Your task to perform on an android device: Find coffee shops on Maps Image 0: 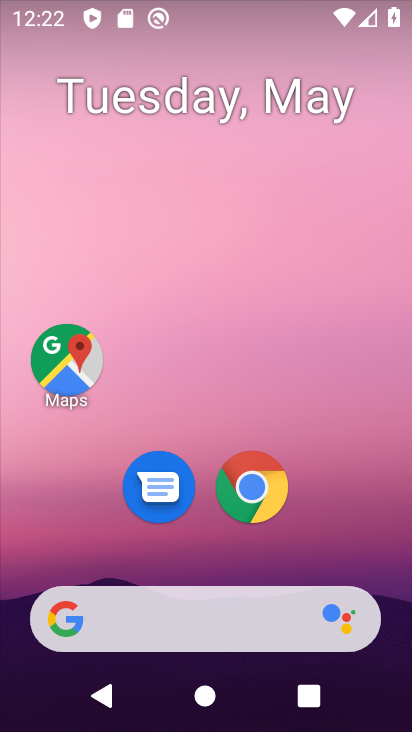
Step 0: drag from (361, 521) to (266, 10)
Your task to perform on an android device: Find coffee shops on Maps Image 1: 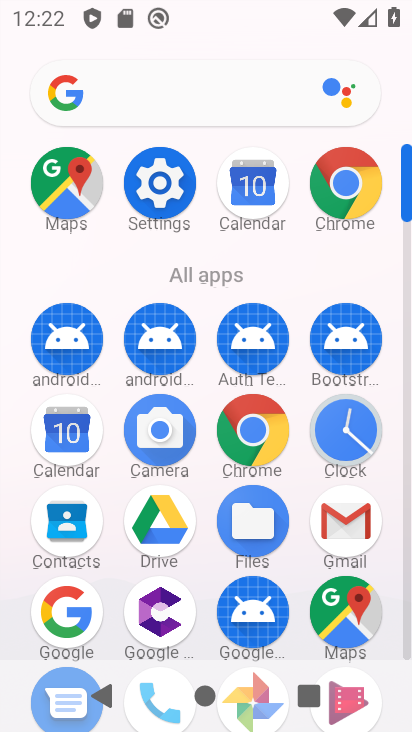
Step 1: drag from (12, 562) to (17, 244)
Your task to perform on an android device: Find coffee shops on Maps Image 2: 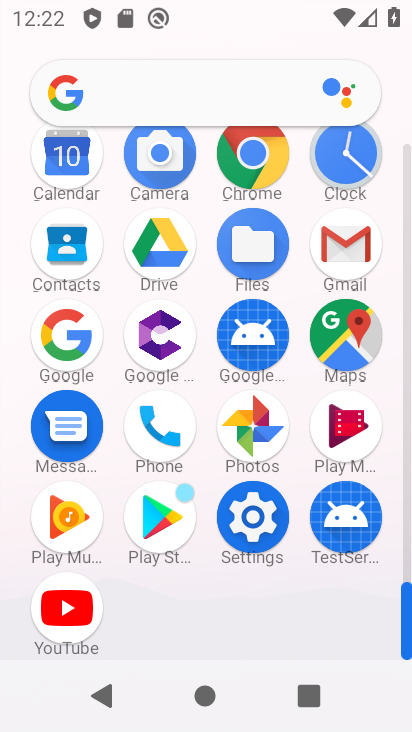
Step 2: click (340, 330)
Your task to perform on an android device: Find coffee shops on Maps Image 3: 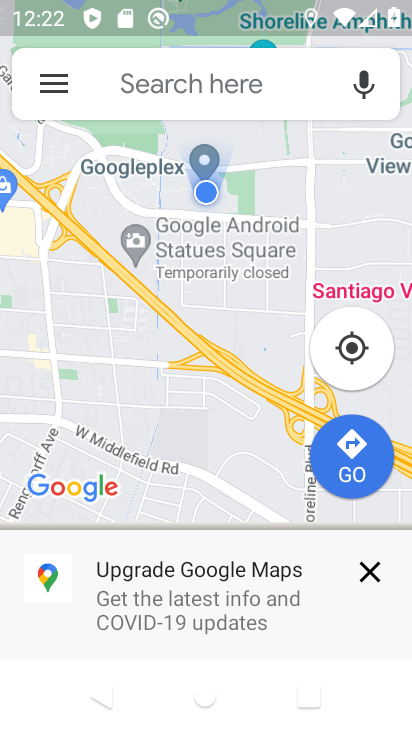
Step 3: click (276, 87)
Your task to perform on an android device: Find coffee shops on Maps Image 4: 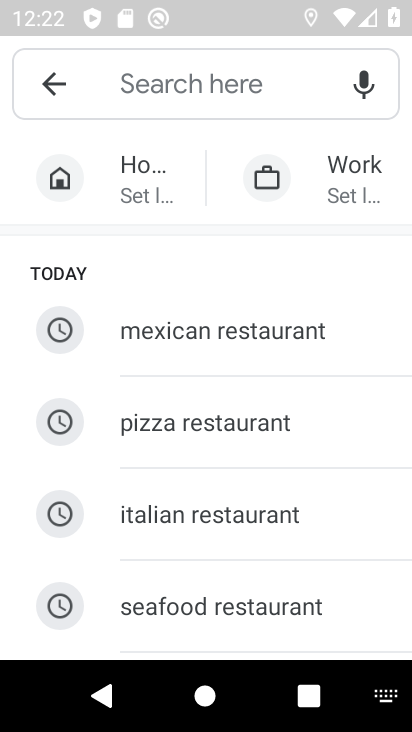
Step 4: type " coffee shops"
Your task to perform on an android device: Find coffee shops on Maps Image 5: 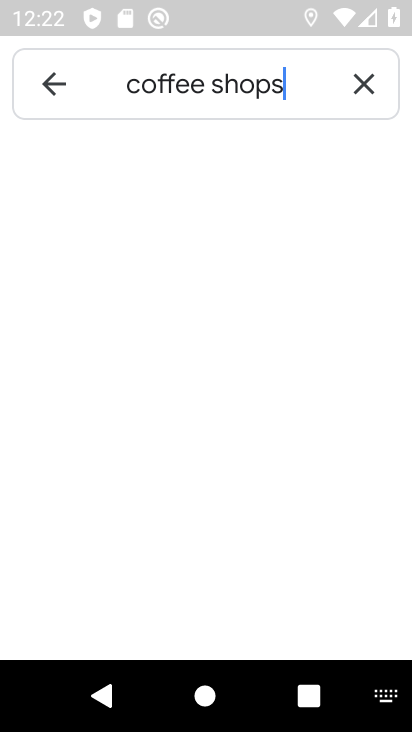
Step 5: type ""
Your task to perform on an android device: Find coffee shops on Maps Image 6: 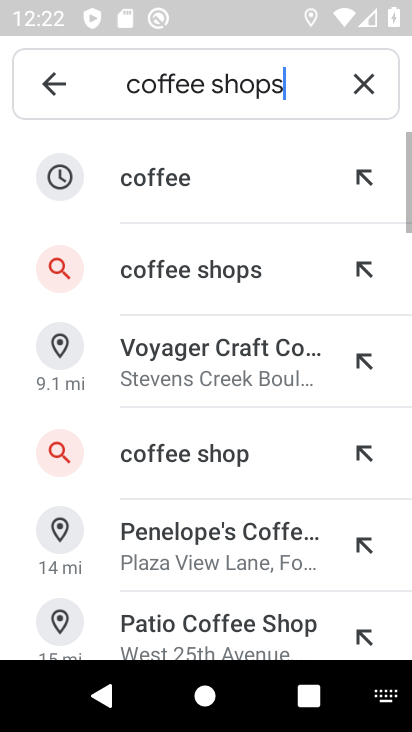
Step 6: click (203, 181)
Your task to perform on an android device: Find coffee shops on Maps Image 7: 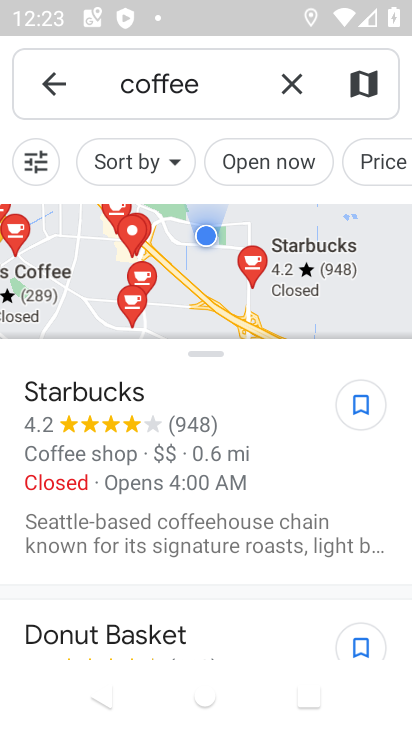
Step 7: task complete